Your task to perform on an android device: Open Maps and search for coffee Image 0: 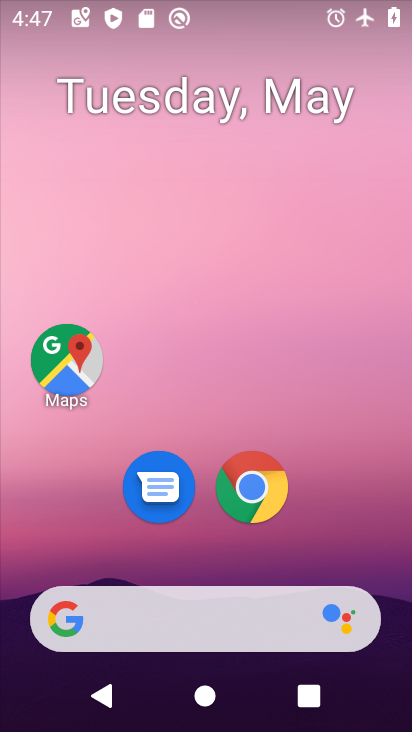
Step 0: click (72, 370)
Your task to perform on an android device: Open Maps and search for coffee Image 1: 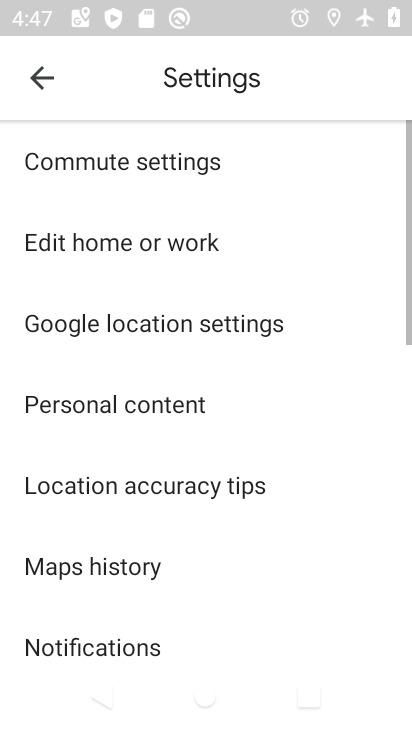
Step 1: click (34, 79)
Your task to perform on an android device: Open Maps and search for coffee Image 2: 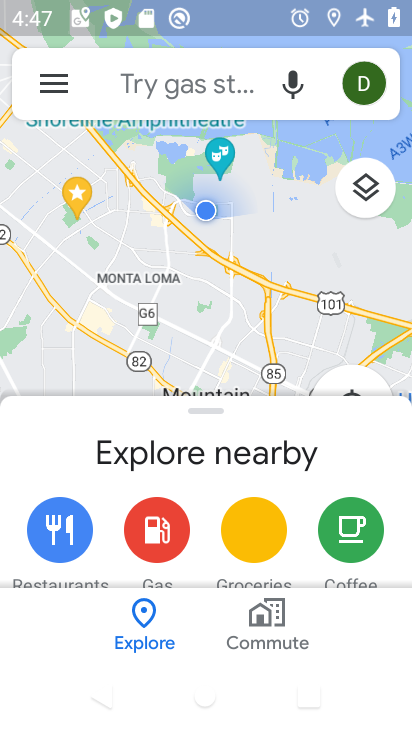
Step 2: click (154, 63)
Your task to perform on an android device: Open Maps and search for coffee Image 3: 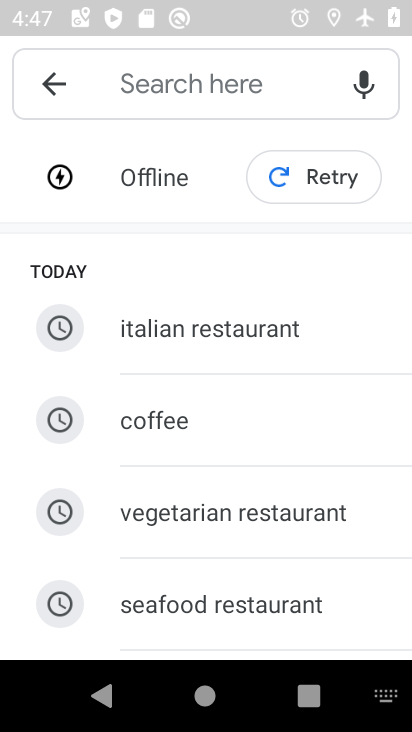
Step 3: click (155, 423)
Your task to perform on an android device: Open Maps and search for coffee Image 4: 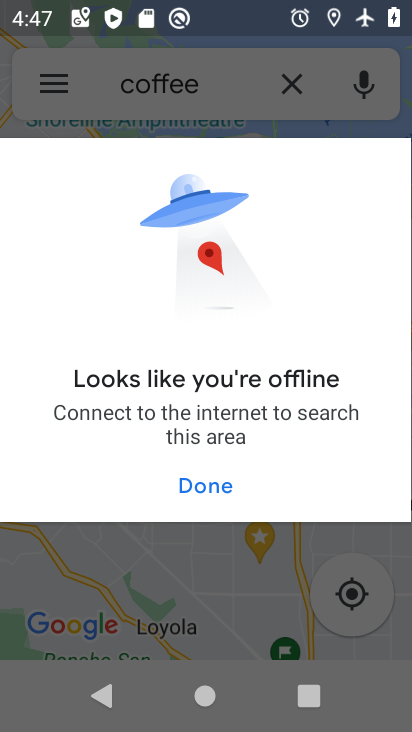
Step 4: task complete